Your task to perform on an android device: Check the weather Image 0: 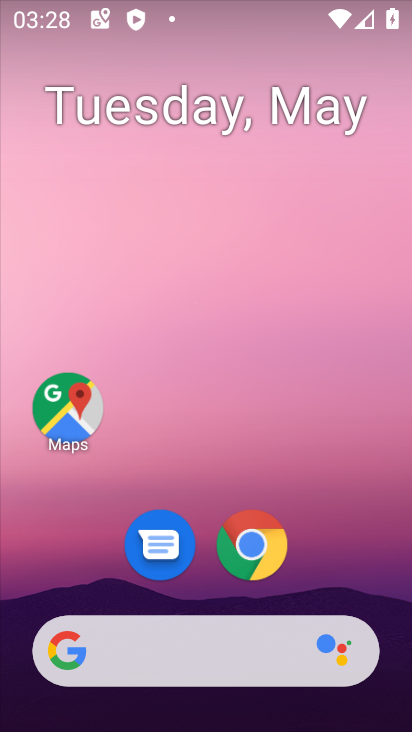
Step 0: click (155, 656)
Your task to perform on an android device: Check the weather Image 1: 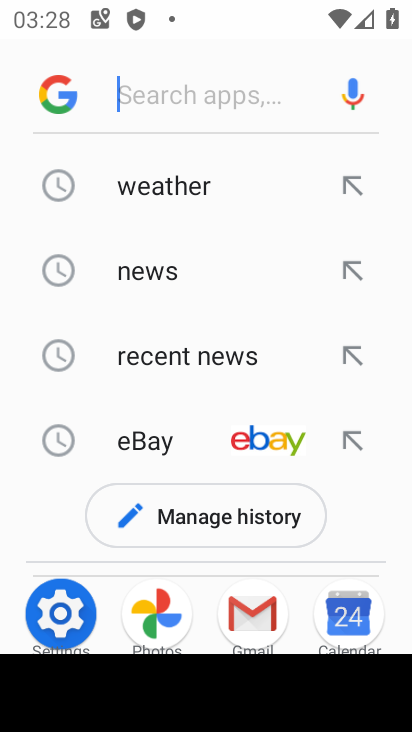
Step 1: click (176, 182)
Your task to perform on an android device: Check the weather Image 2: 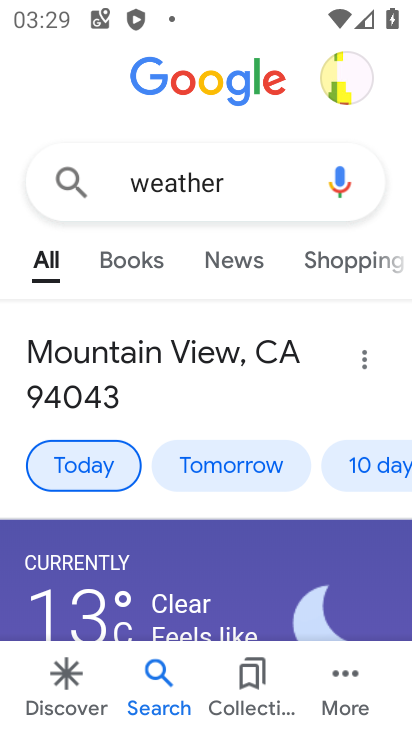
Step 2: task complete